Your task to perform on an android device: open app "Duolingo: language lessons" (install if not already installed) and go to login screen Image 0: 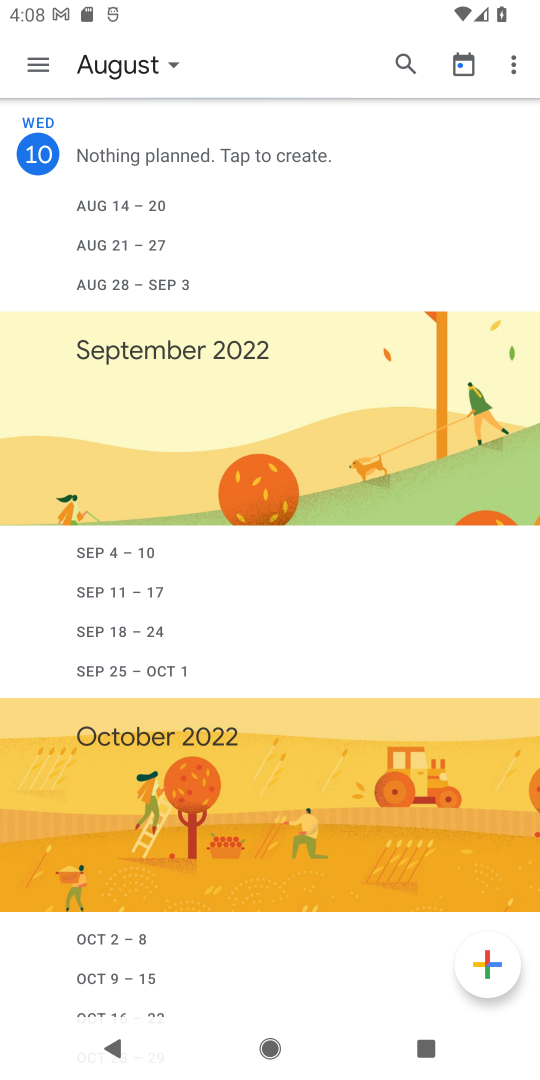
Step 0: press home button
Your task to perform on an android device: open app "Duolingo: language lessons" (install if not already installed) and go to login screen Image 1: 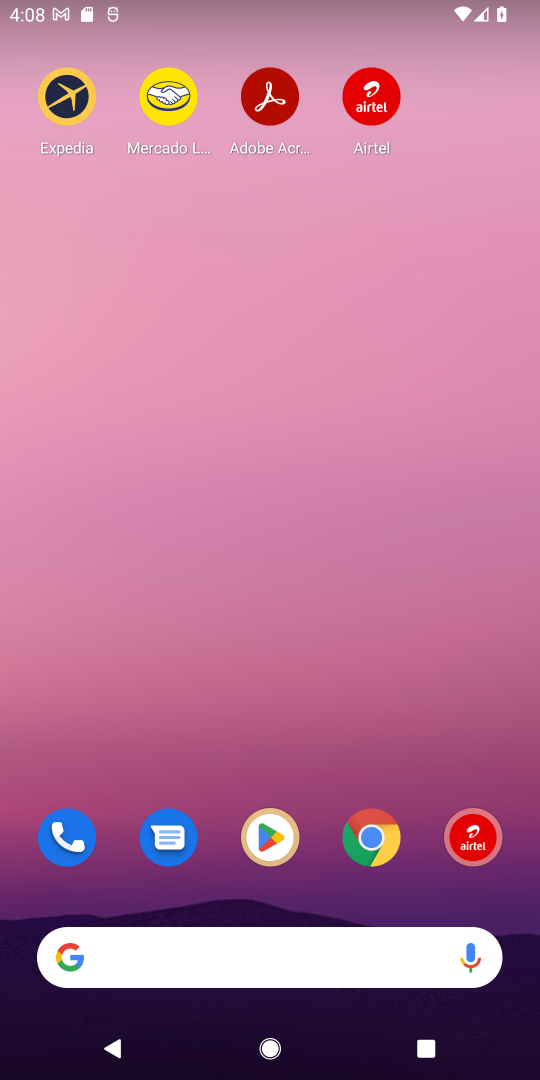
Step 1: press home button
Your task to perform on an android device: open app "Duolingo: language lessons" (install if not already installed) and go to login screen Image 2: 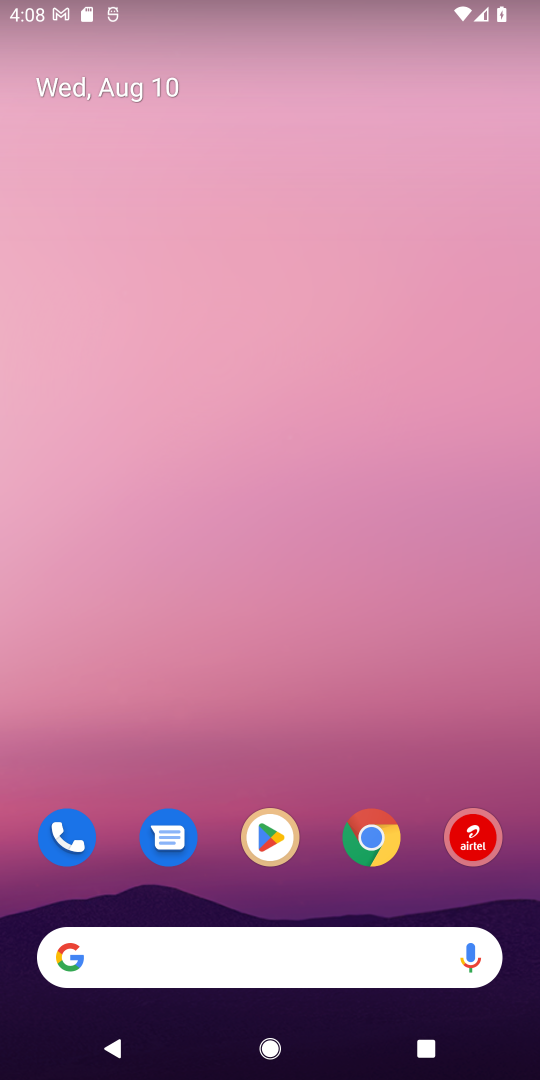
Step 2: click (273, 838)
Your task to perform on an android device: open app "Duolingo: language lessons" (install if not already installed) and go to login screen Image 3: 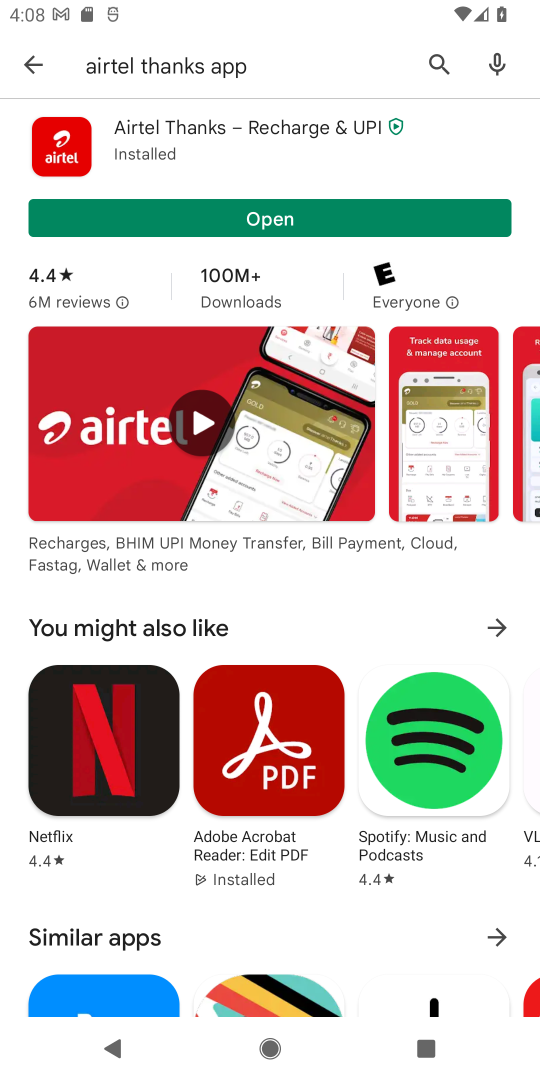
Step 3: click (442, 53)
Your task to perform on an android device: open app "Duolingo: language lessons" (install if not already installed) and go to login screen Image 4: 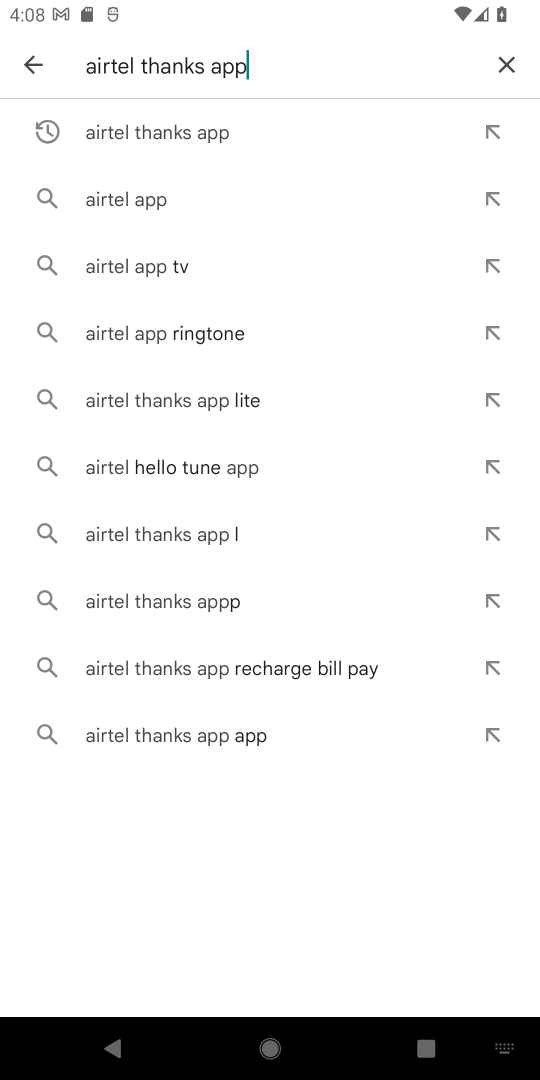
Step 4: click (505, 59)
Your task to perform on an android device: open app "Duolingo: language lessons" (install if not already installed) and go to login screen Image 5: 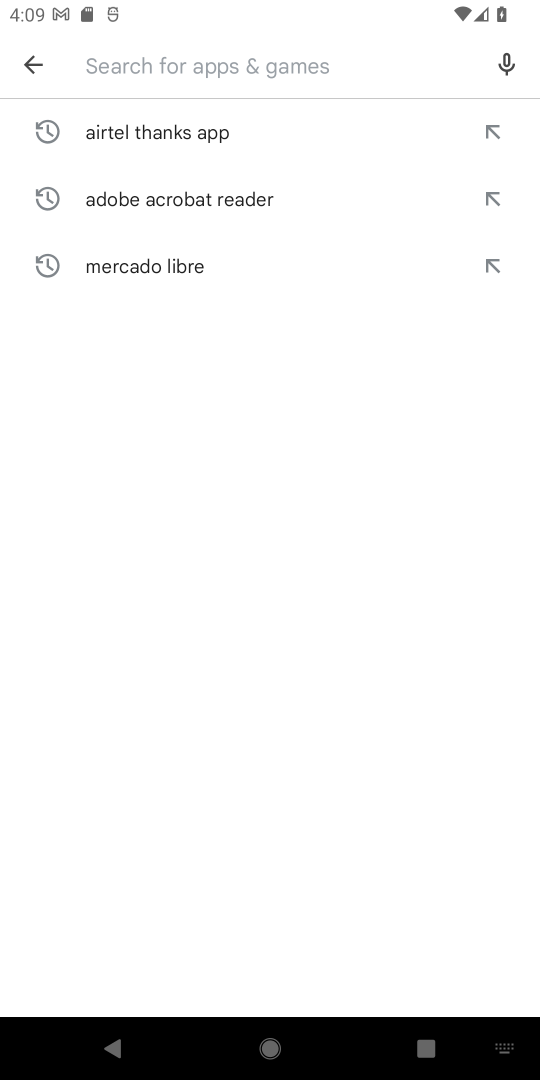
Step 5: type "Duolingo: language lessons"
Your task to perform on an android device: open app "Duolingo: language lessons" (install if not already installed) and go to login screen Image 6: 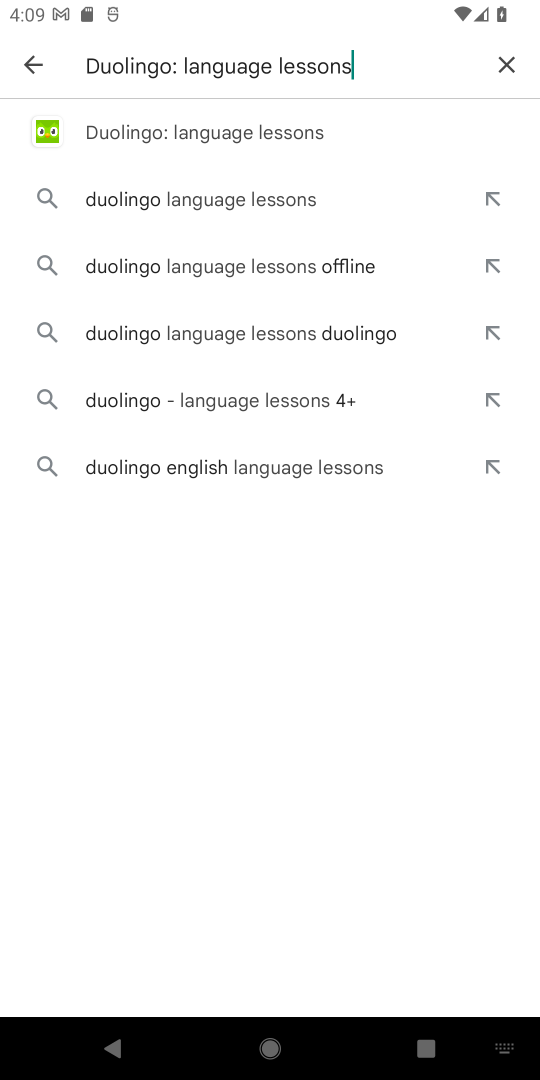
Step 6: click (217, 123)
Your task to perform on an android device: open app "Duolingo: language lessons" (install if not already installed) and go to login screen Image 7: 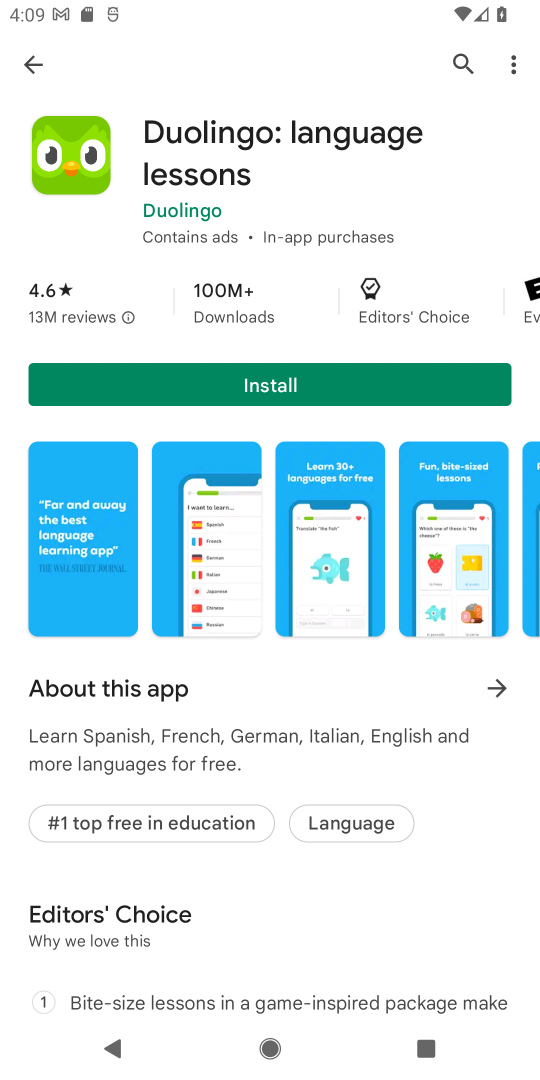
Step 7: click (264, 387)
Your task to perform on an android device: open app "Duolingo: language lessons" (install if not already installed) and go to login screen Image 8: 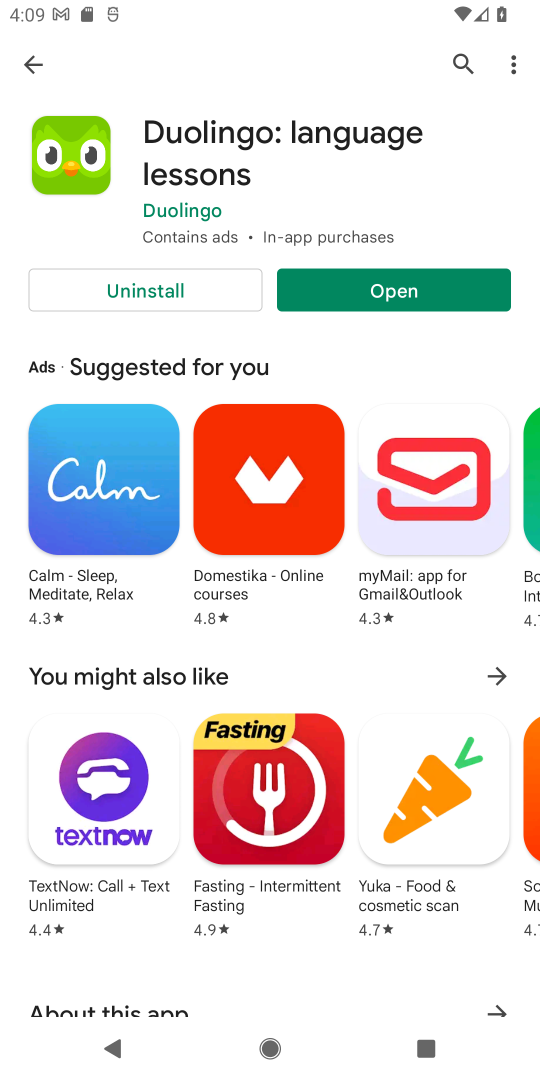
Step 8: click (440, 299)
Your task to perform on an android device: open app "Duolingo: language lessons" (install if not already installed) and go to login screen Image 9: 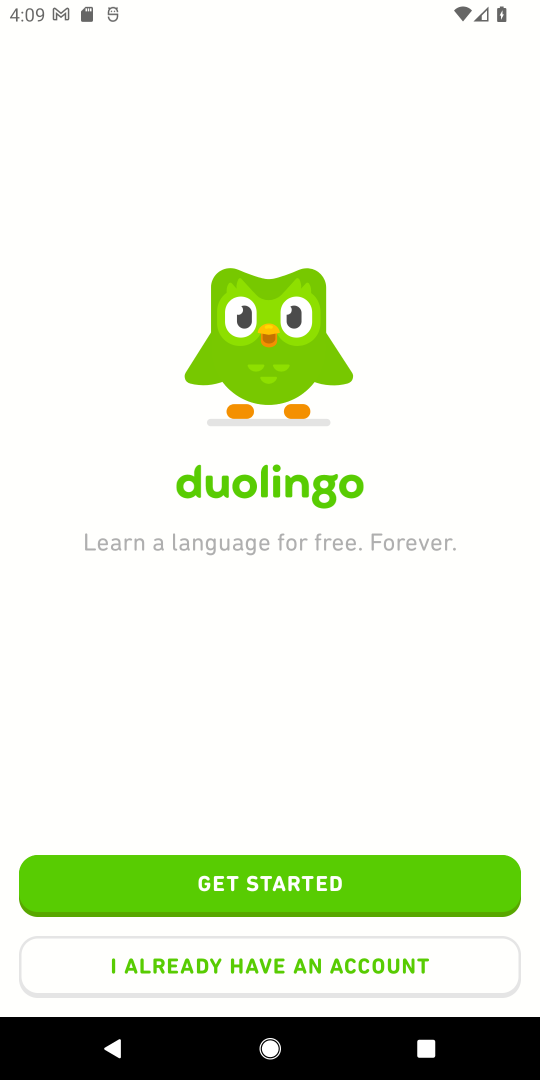
Step 9: click (393, 892)
Your task to perform on an android device: open app "Duolingo: language lessons" (install if not already installed) and go to login screen Image 10: 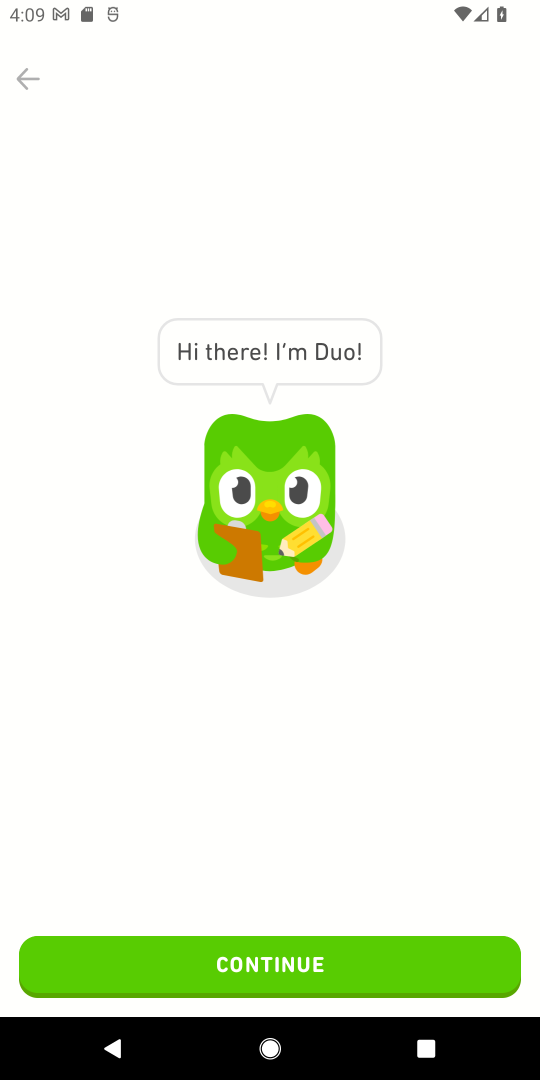
Step 10: click (275, 970)
Your task to perform on an android device: open app "Duolingo: language lessons" (install if not already installed) and go to login screen Image 11: 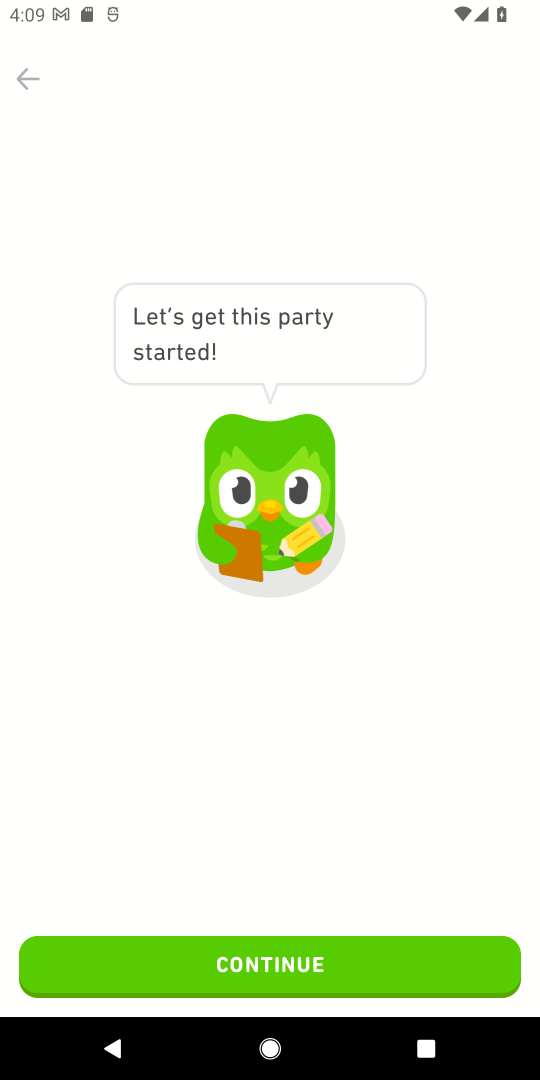
Step 11: click (267, 963)
Your task to perform on an android device: open app "Duolingo: language lessons" (install if not already installed) and go to login screen Image 12: 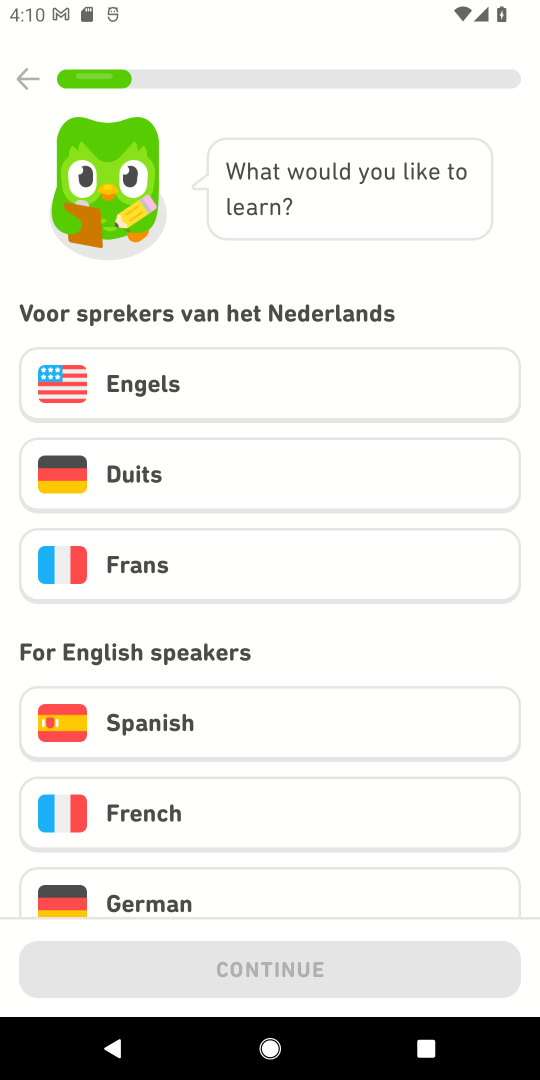
Step 12: task complete